Your task to perform on an android device: Open Youtube and go to the subscriptions tab Image 0: 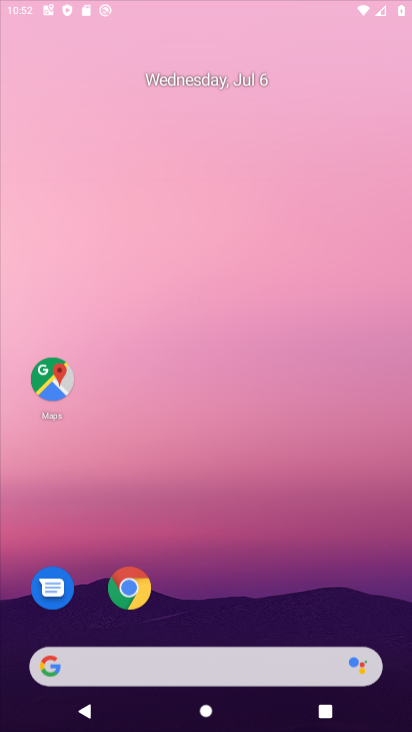
Step 0: drag from (243, 356) to (250, 199)
Your task to perform on an android device: Open Youtube and go to the subscriptions tab Image 1: 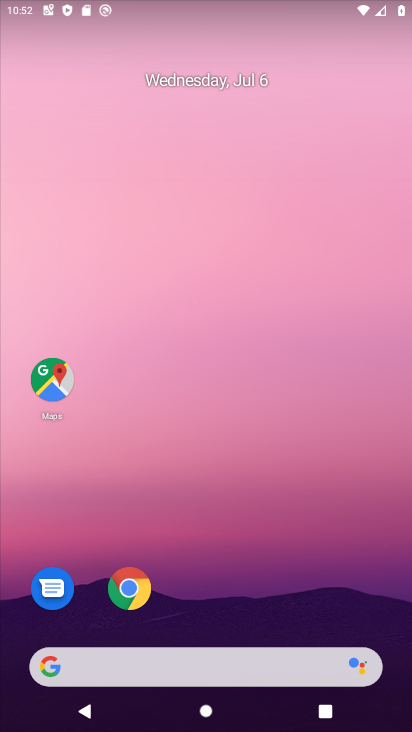
Step 1: drag from (283, 631) to (226, 214)
Your task to perform on an android device: Open Youtube and go to the subscriptions tab Image 2: 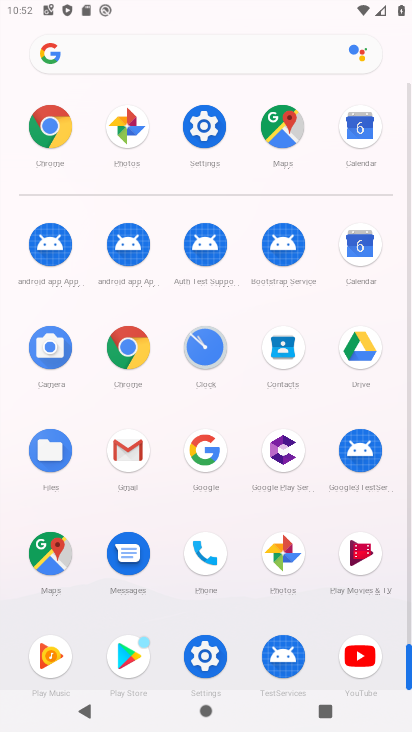
Step 2: click (361, 654)
Your task to perform on an android device: Open Youtube and go to the subscriptions tab Image 3: 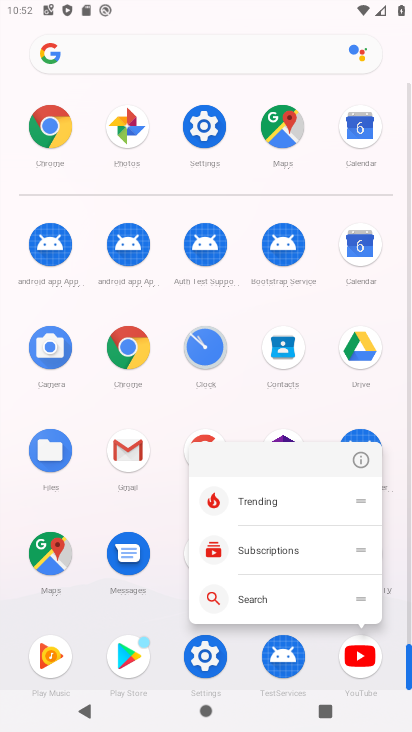
Step 3: click (278, 551)
Your task to perform on an android device: Open Youtube and go to the subscriptions tab Image 4: 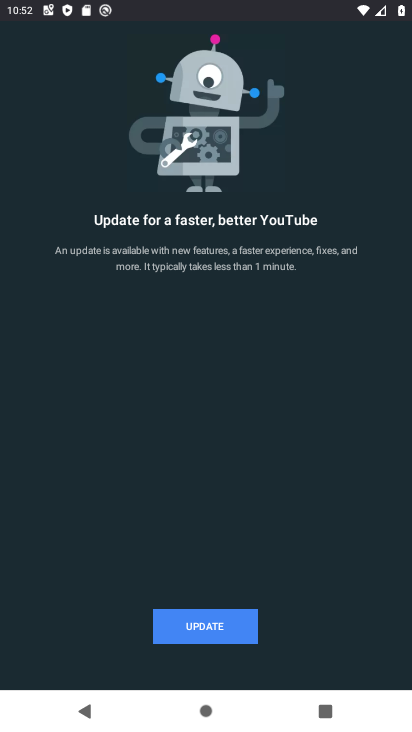
Step 4: click (265, 516)
Your task to perform on an android device: Open Youtube and go to the subscriptions tab Image 5: 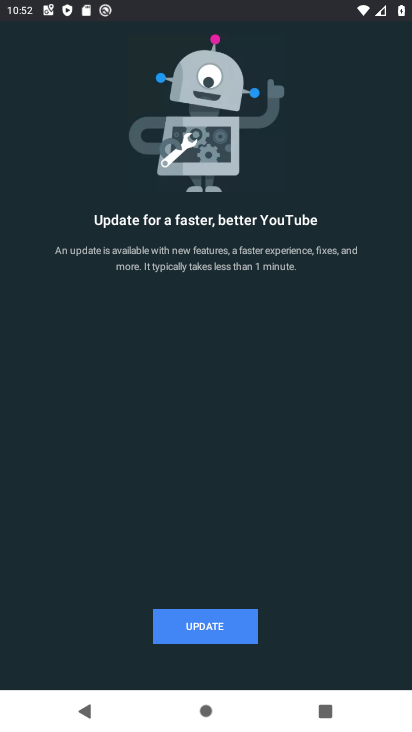
Step 5: click (219, 637)
Your task to perform on an android device: Open Youtube and go to the subscriptions tab Image 6: 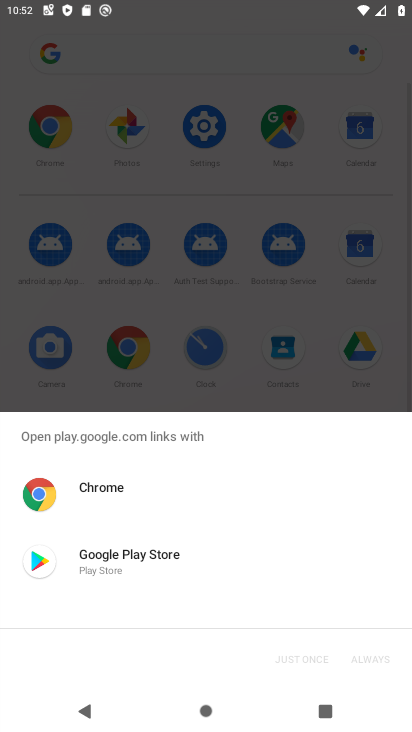
Step 6: click (288, 326)
Your task to perform on an android device: Open Youtube and go to the subscriptions tab Image 7: 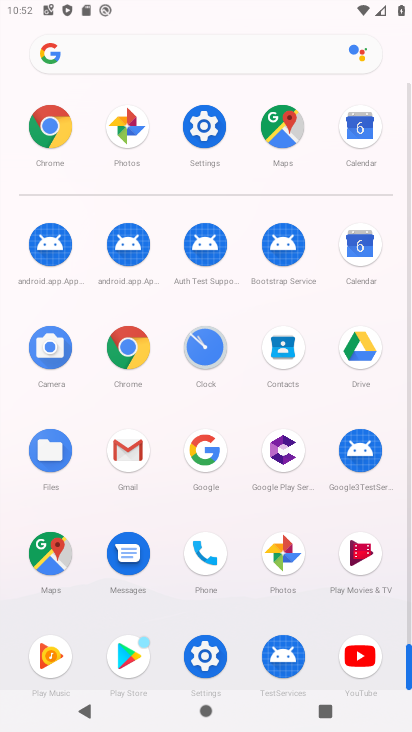
Step 7: task complete